Your task to perform on an android device: turn off location Image 0: 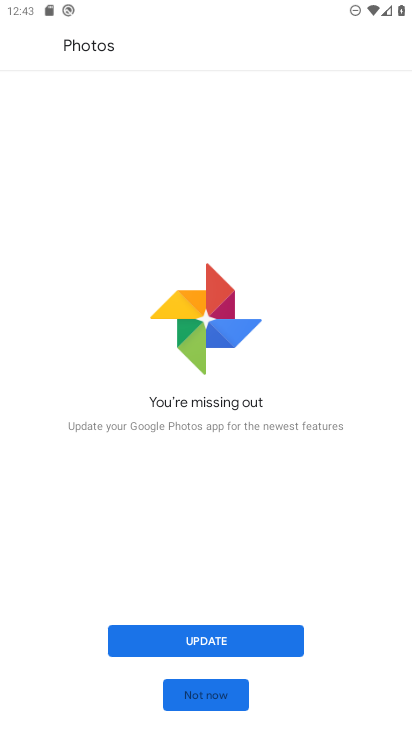
Step 0: press home button
Your task to perform on an android device: turn off location Image 1: 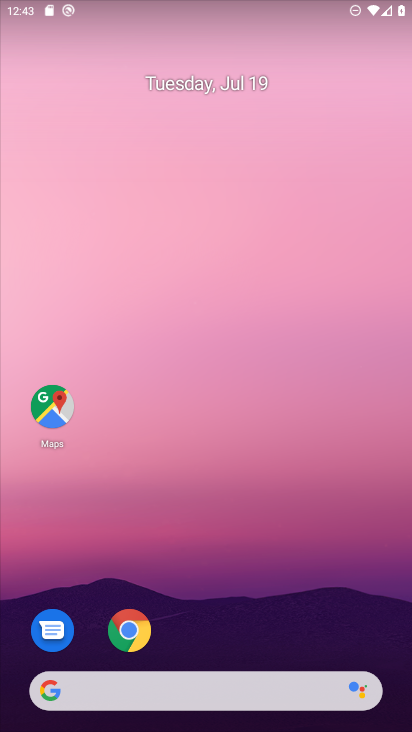
Step 1: drag from (187, 695) to (233, 43)
Your task to perform on an android device: turn off location Image 2: 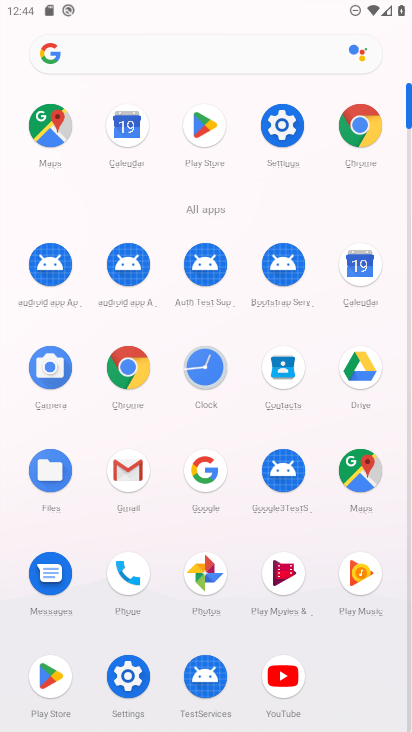
Step 2: click (276, 124)
Your task to perform on an android device: turn off location Image 3: 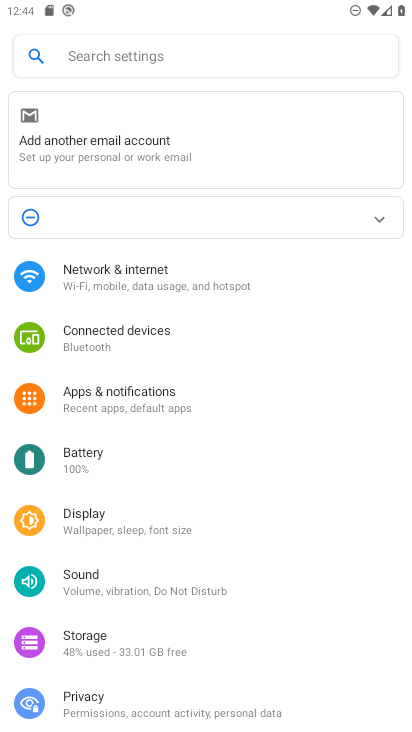
Step 3: drag from (281, 618) to (349, 254)
Your task to perform on an android device: turn off location Image 4: 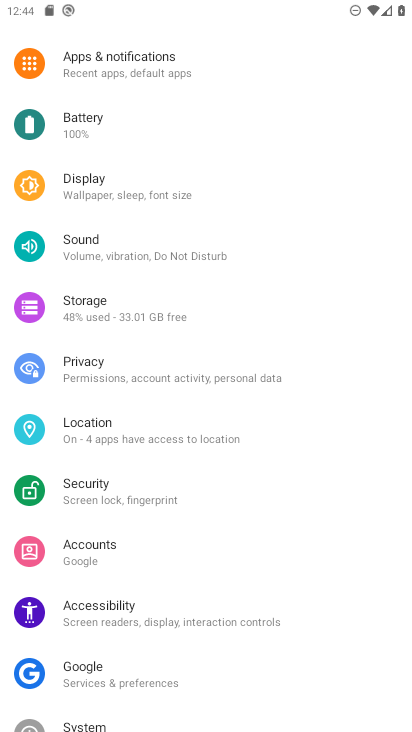
Step 4: click (105, 434)
Your task to perform on an android device: turn off location Image 5: 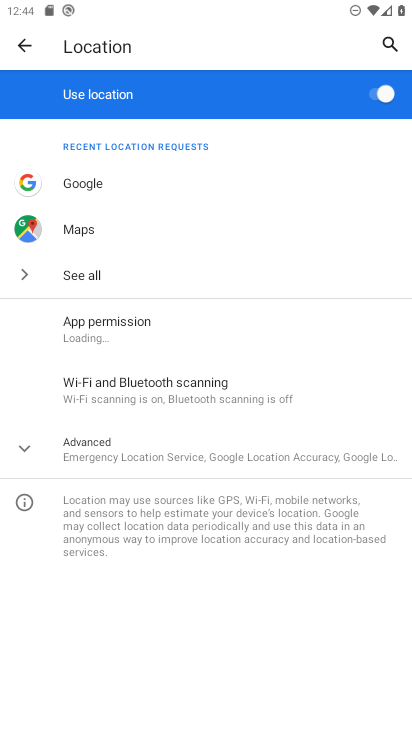
Step 5: click (376, 93)
Your task to perform on an android device: turn off location Image 6: 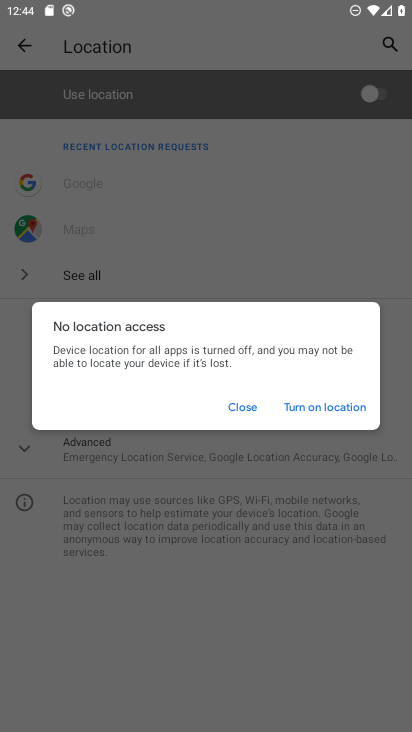
Step 6: click (238, 408)
Your task to perform on an android device: turn off location Image 7: 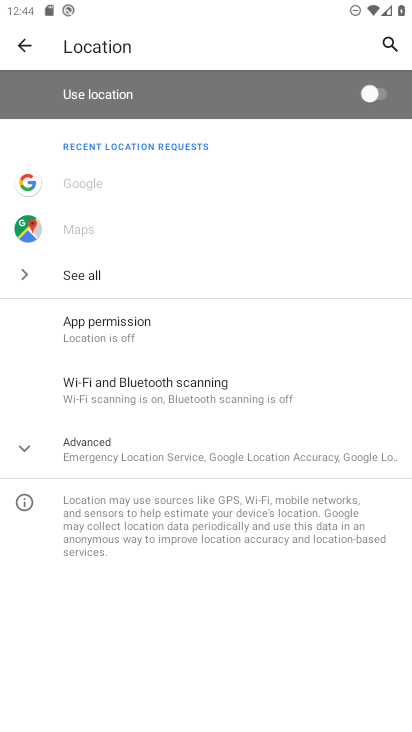
Step 7: task complete